Your task to perform on an android device: Open accessibility settings Image 0: 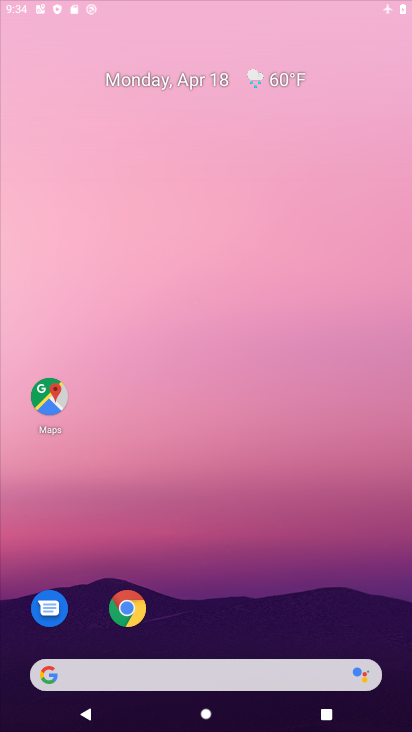
Step 0: drag from (166, 568) to (220, 99)
Your task to perform on an android device: Open accessibility settings Image 1: 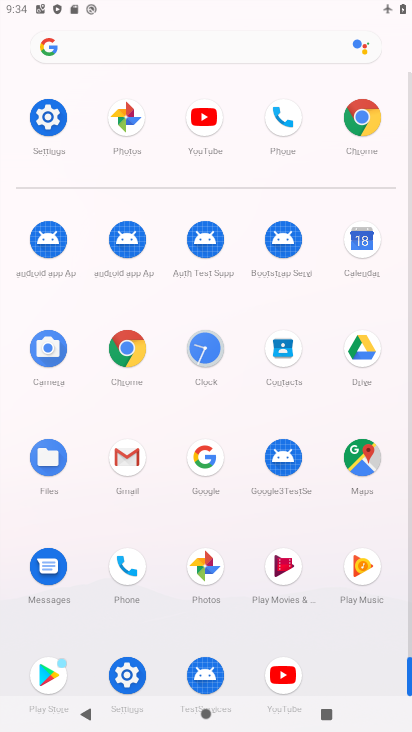
Step 1: click (44, 125)
Your task to perform on an android device: Open accessibility settings Image 2: 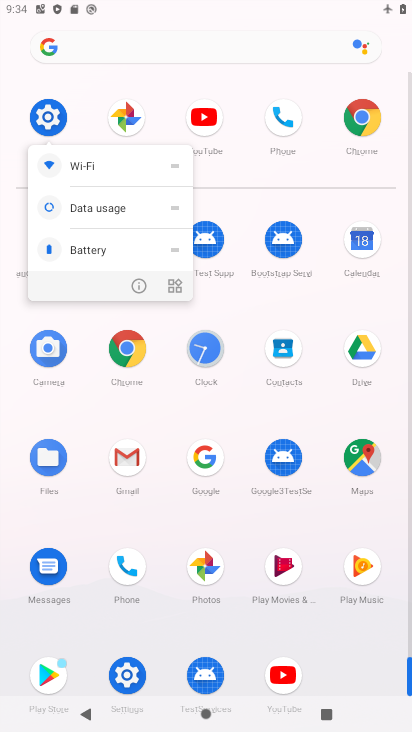
Step 2: click (145, 292)
Your task to perform on an android device: Open accessibility settings Image 3: 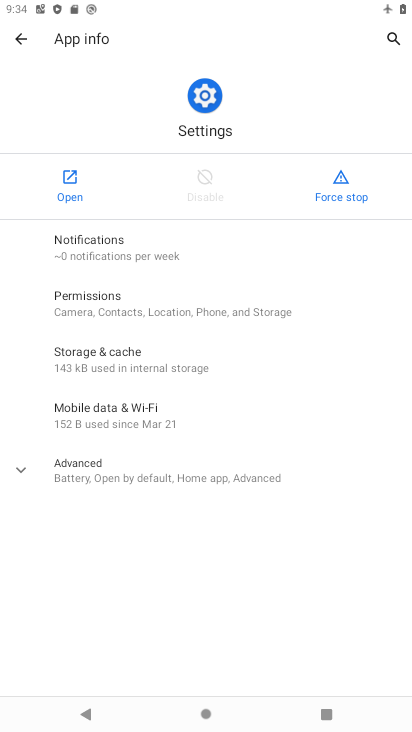
Step 3: click (54, 167)
Your task to perform on an android device: Open accessibility settings Image 4: 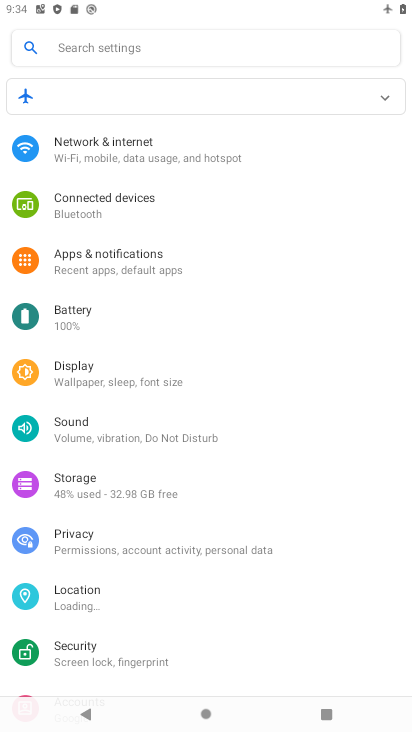
Step 4: drag from (185, 520) to (255, 195)
Your task to perform on an android device: Open accessibility settings Image 5: 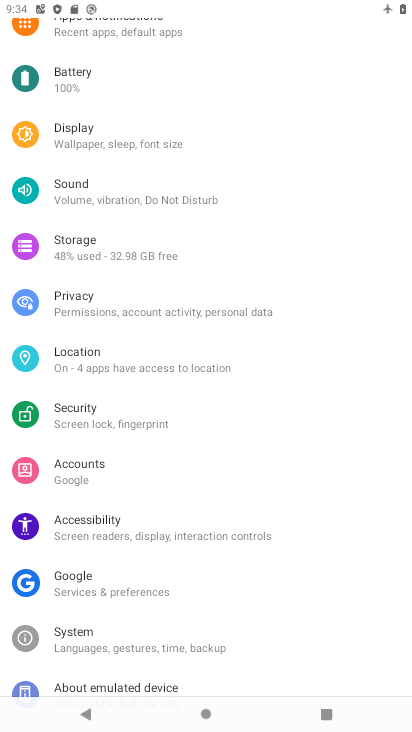
Step 5: click (87, 528)
Your task to perform on an android device: Open accessibility settings Image 6: 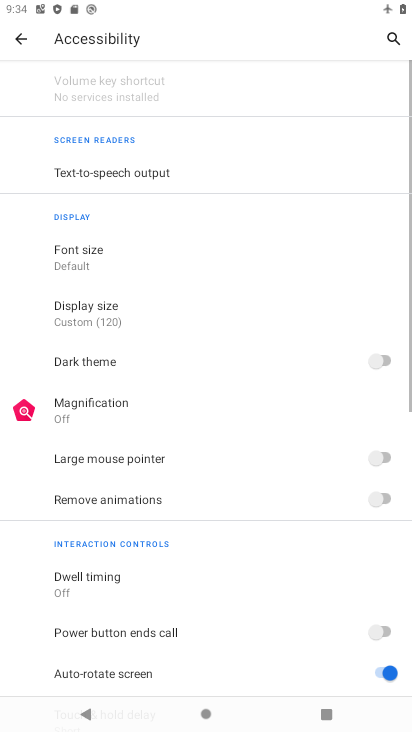
Step 6: task complete